Your task to perform on an android device: turn on priority inbox in the gmail app Image 0: 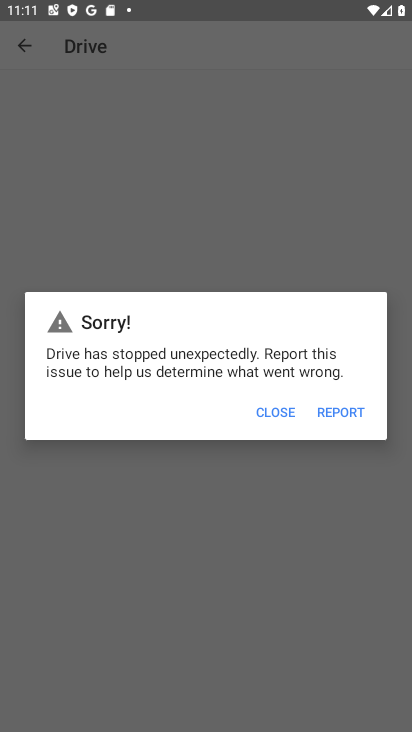
Step 0: press home button
Your task to perform on an android device: turn on priority inbox in the gmail app Image 1: 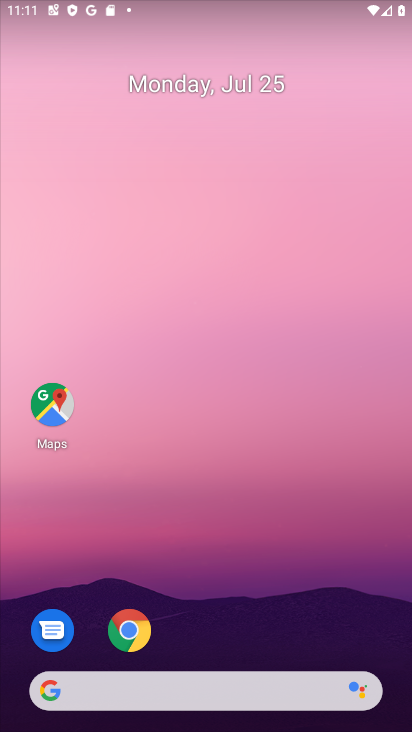
Step 1: drag from (220, 664) to (247, 12)
Your task to perform on an android device: turn on priority inbox in the gmail app Image 2: 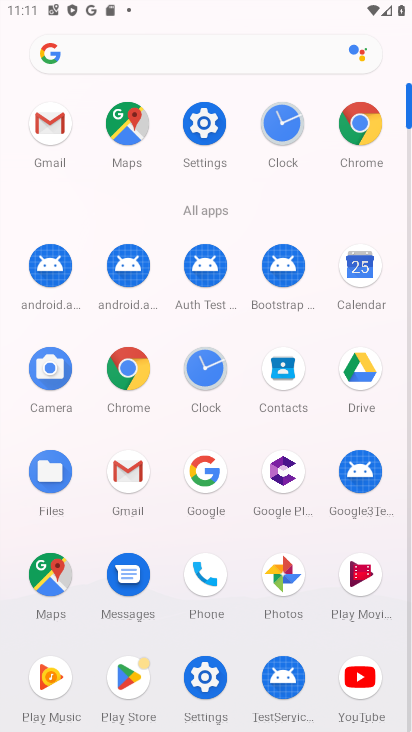
Step 2: click (52, 125)
Your task to perform on an android device: turn on priority inbox in the gmail app Image 3: 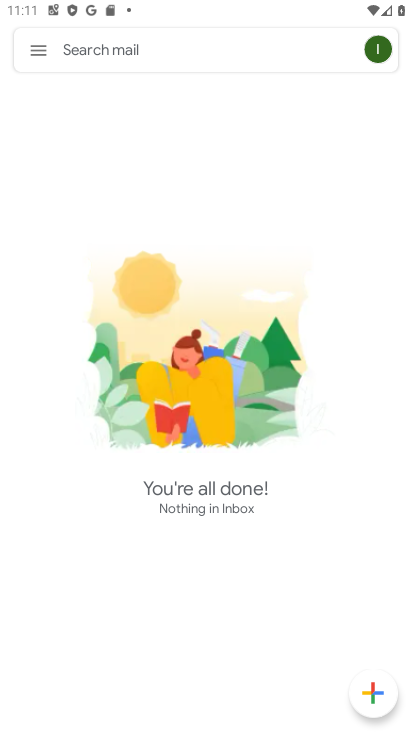
Step 3: click (38, 56)
Your task to perform on an android device: turn on priority inbox in the gmail app Image 4: 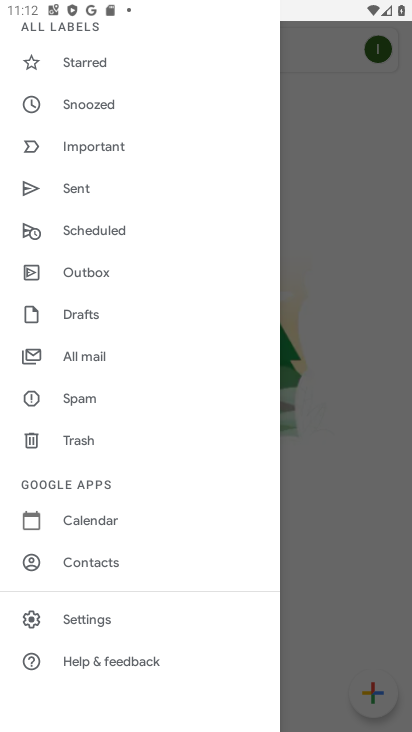
Step 4: click (94, 623)
Your task to perform on an android device: turn on priority inbox in the gmail app Image 5: 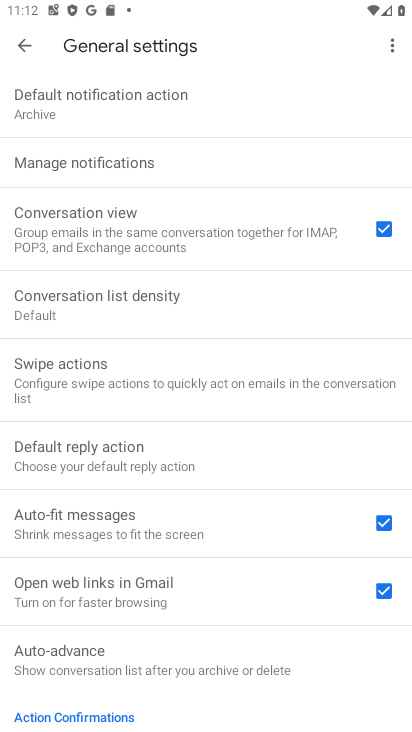
Step 5: click (23, 48)
Your task to perform on an android device: turn on priority inbox in the gmail app Image 6: 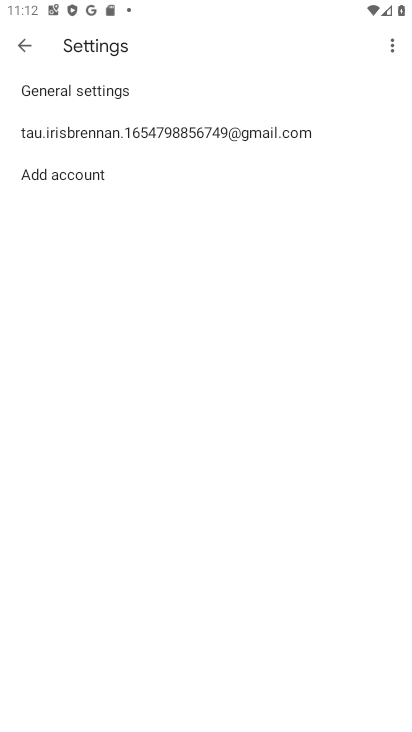
Step 6: click (45, 130)
Your task to perform on an android device: turn on priority inbox in the gmail app Image 7: 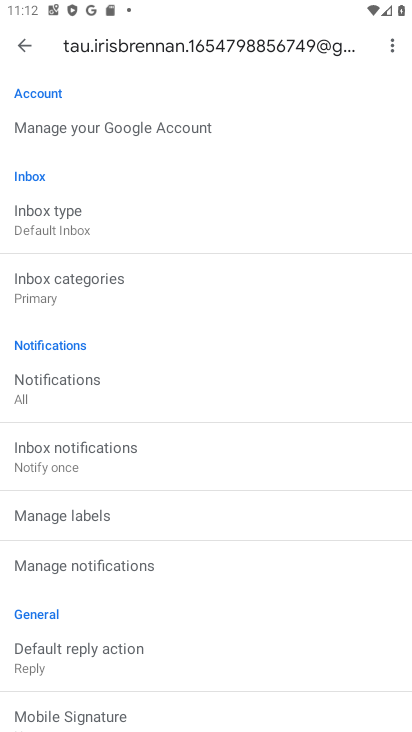
Step 7: click (43, 231)
Your task to perform on an android device: turn on priority inbox in the gmail app Image 8: 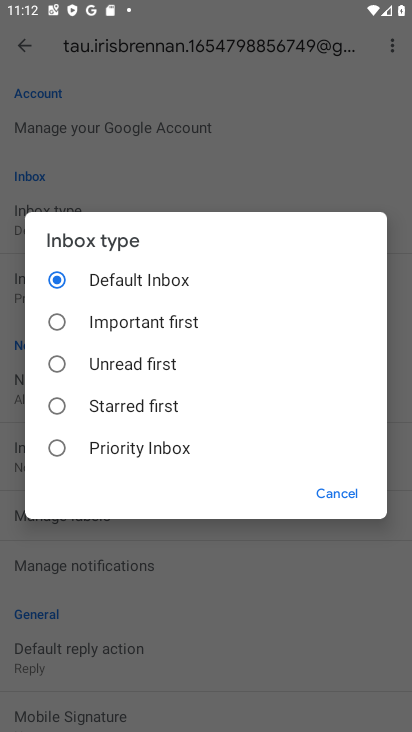
Step 8: click (58, 450)
Your task to perform on an android device: turn on priority inbox in the gmail app Image 9: 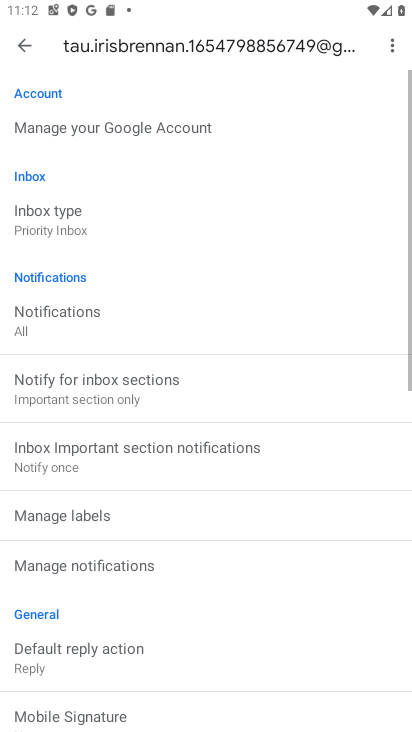
Step 9: task complete